Your task to perform on an android device: Open Chrome and go to the settings page Image 0: 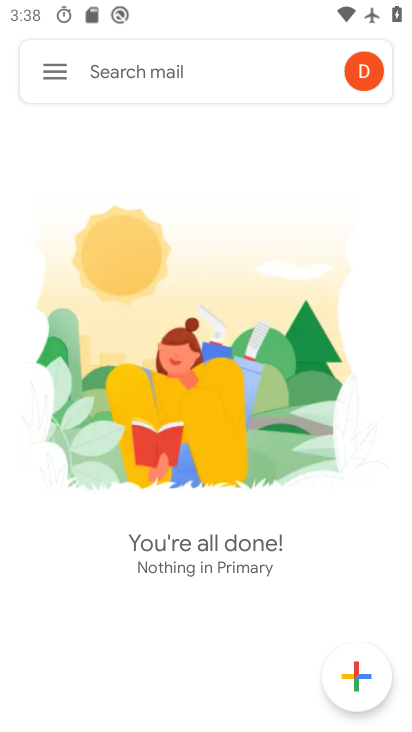
Step 0: press back button
Your task to perform on an android device: Open Chrome and go to the settings page Image 1: 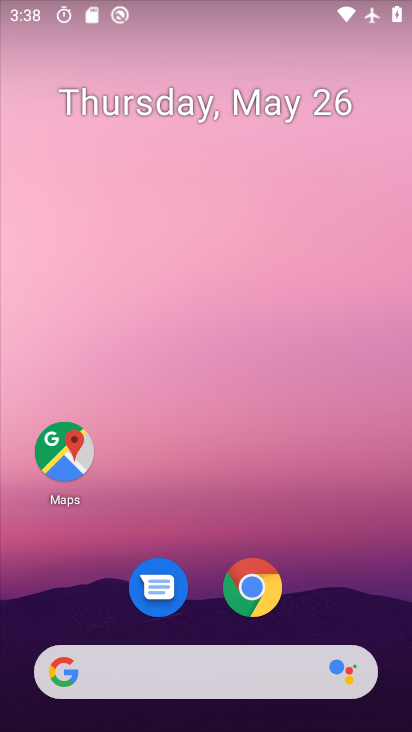
Step 1: drag from (326, 492) to (209, 83)
Your task to perform on an android device: Open Chrome and go to the settings page Image 2: 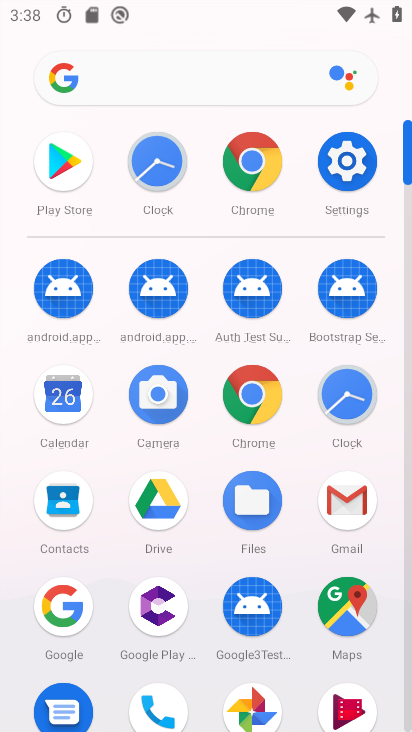
Step 2: click (363, 165)
Your task to perform on an android device: Open Chrome and go to the settings page Image 3: 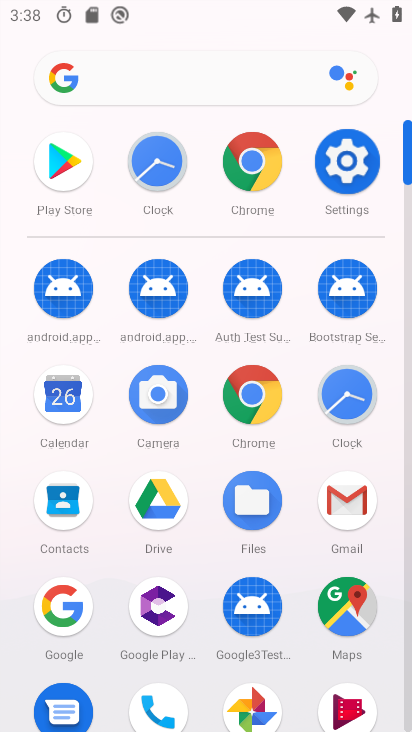
Step 3: click (360, 165)
Your task to perform on an android device: Open Chrome and go to the settings page Image 4: 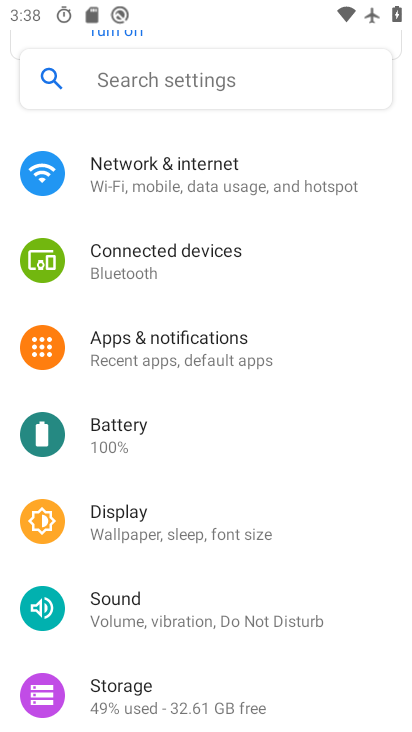
Step 4: press back button
Your task to perform on an android device: Open Chrome and go to the settings page Image 5: 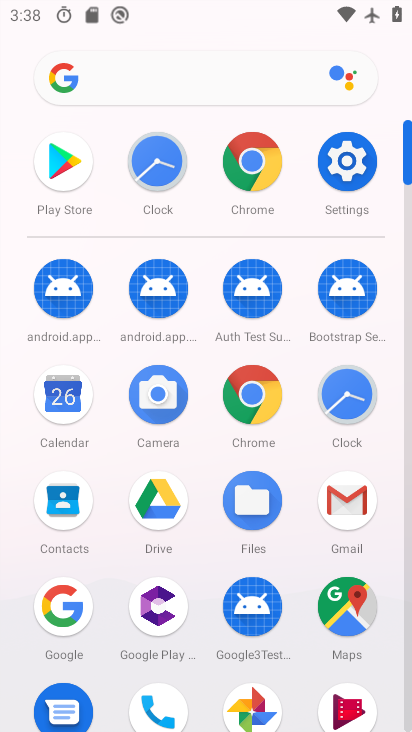
Step 5: click (250, 160)
Your task to perform on an android device: Open Chrome and go to the settings page Image 6: 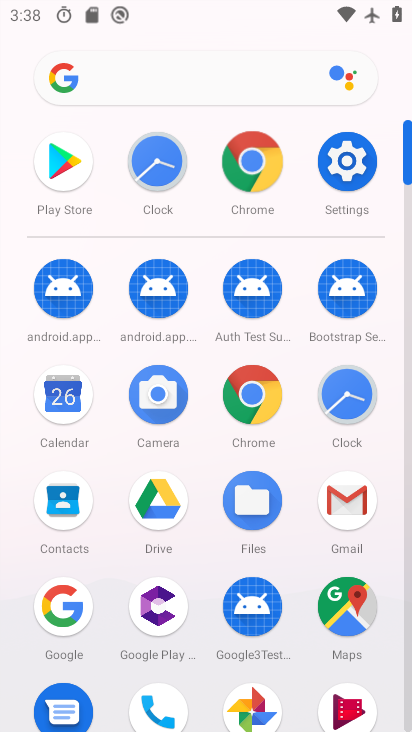
Step 6: click (249, 160)
Your task to perform on an android device: Open Chrome and go to the settings page Image 7: 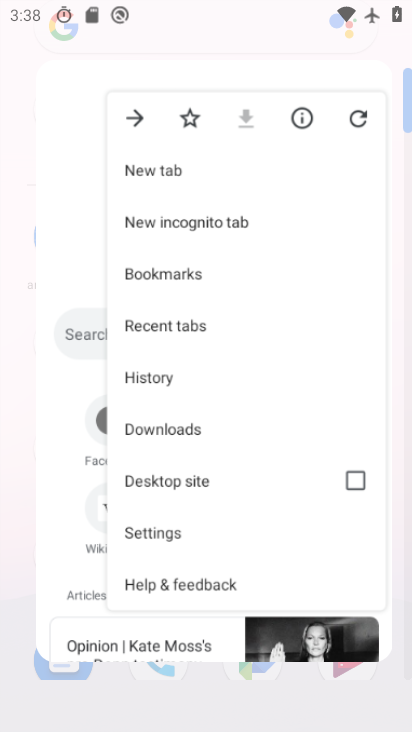
Step 7: click (249, 160)
Your task to perform on an android device: Open Chrome and go to the settings page Image 8: 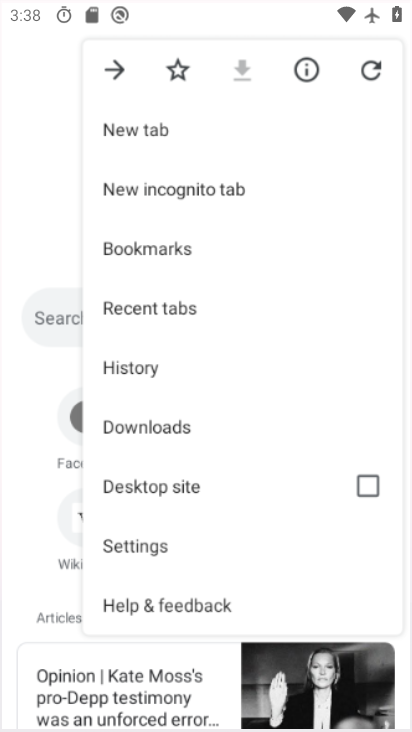
Step 8: click (249, 160)
Your task to perform on an android device: Open Chrome and go to the settings page Image 9: 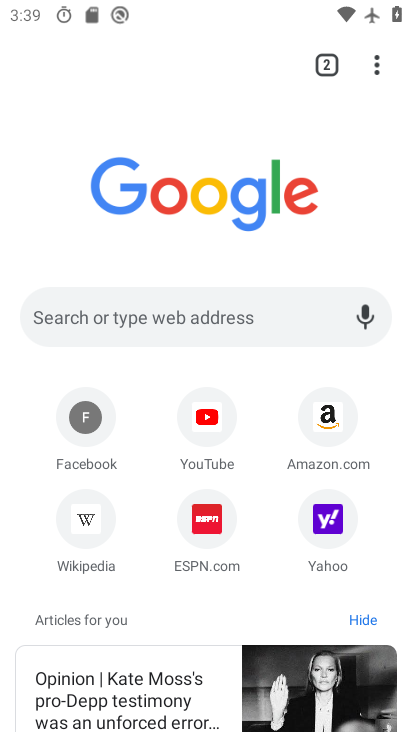
Step 9: drag from (379, 73) to (122, 546)
Your task to perform on an android device: Open Chrome and go to the settings page Image 10: 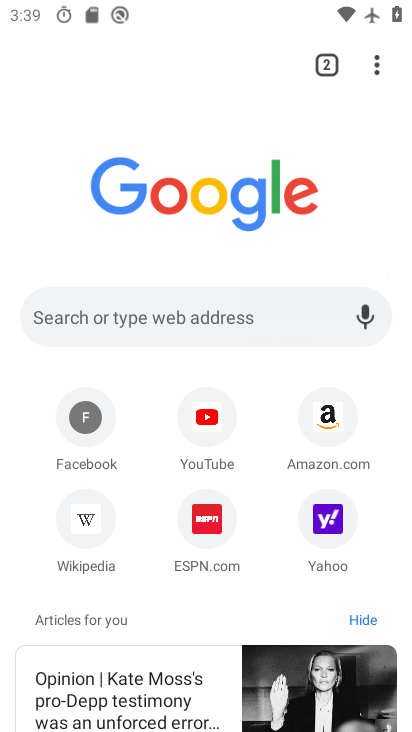
Step 10: click (122, 546)
Your task to perform on an android device: Open Chrome and go to the settings page Image 11: 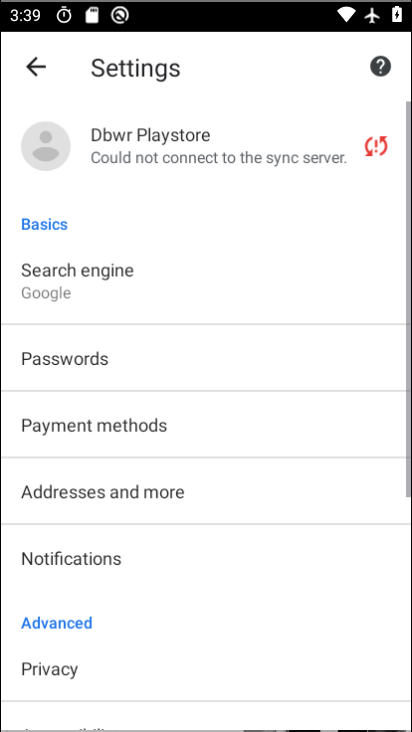
Step 11: click (124, 546)
Your task to perform on an android device: Open Chrome and go to the settings page Image 12: 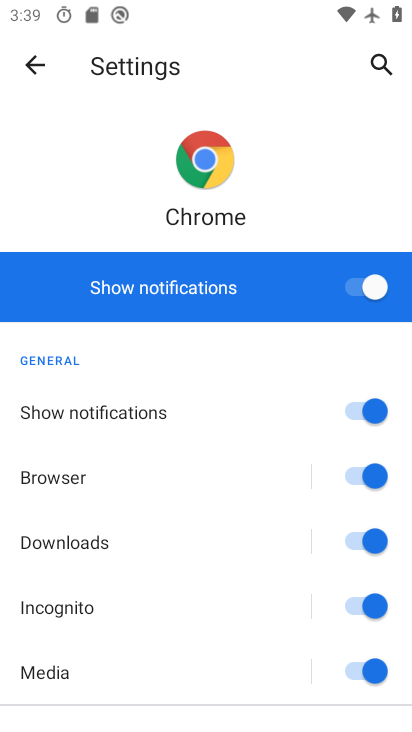
Step 12: task complete